Your task to perform on an android device: Add "duracell triple a" to the cart on ebay, then select checkout. Image 0: 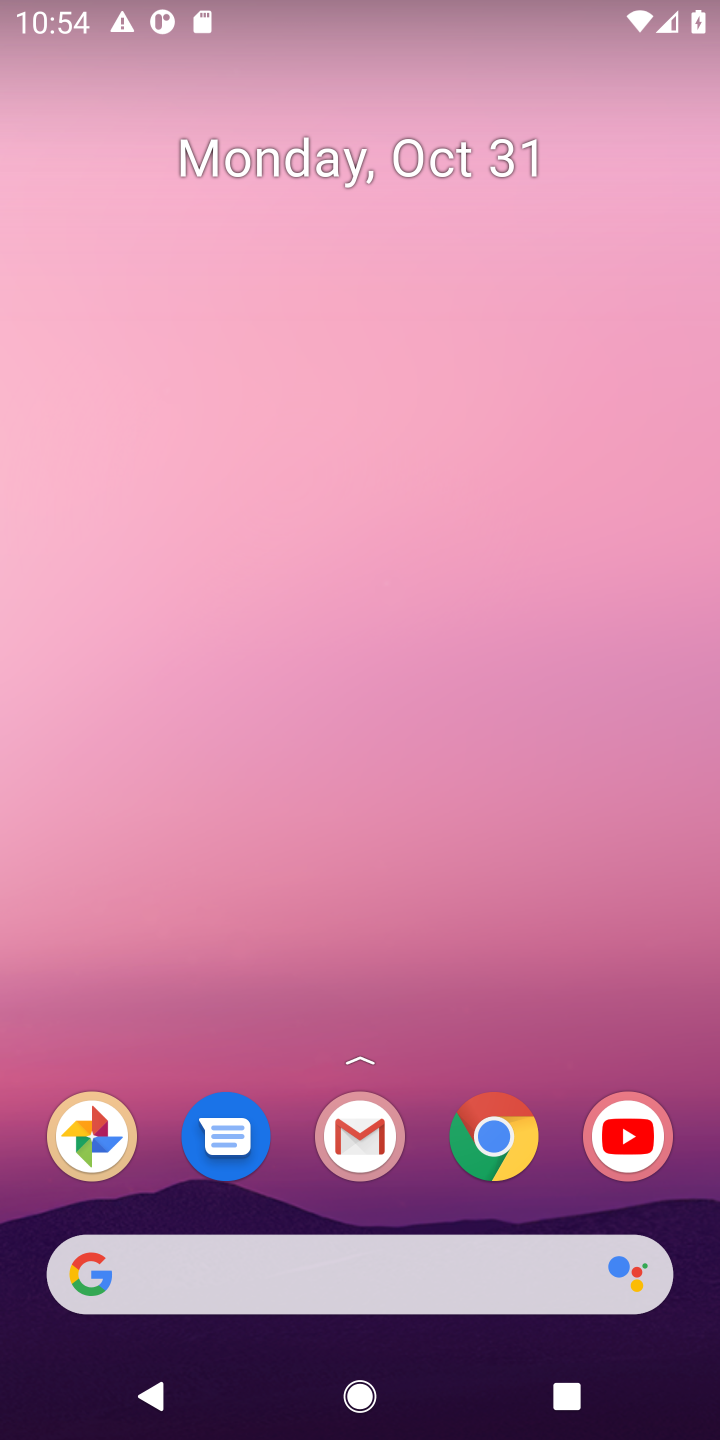
Step 0: press home button
Your task to perform on an android device: Add "duracell triple a" to the cart on ebay, then select checkout. Image 1: 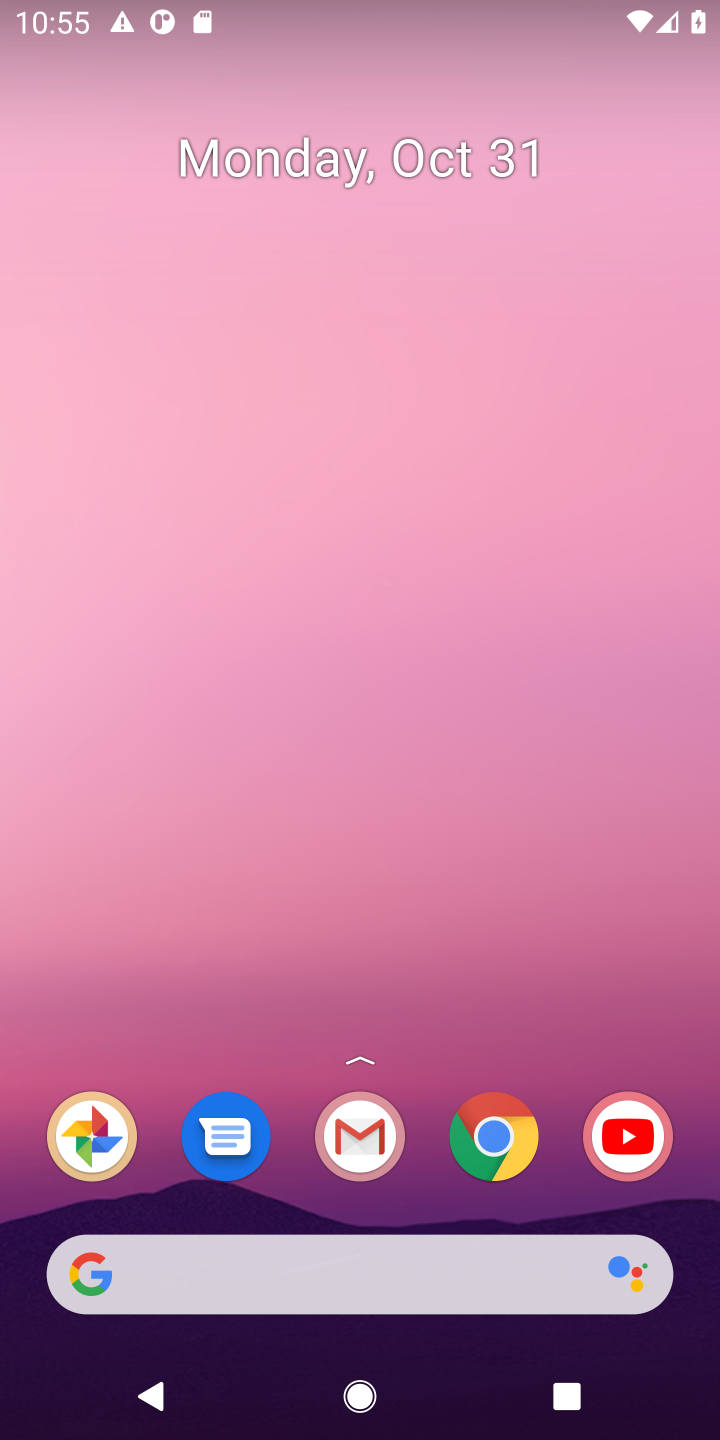
Step 1: click (145, 1274)
Your task to perform on an android device: Add "duracell triple a" to the cart on ebay, then select checkout. Image 2: 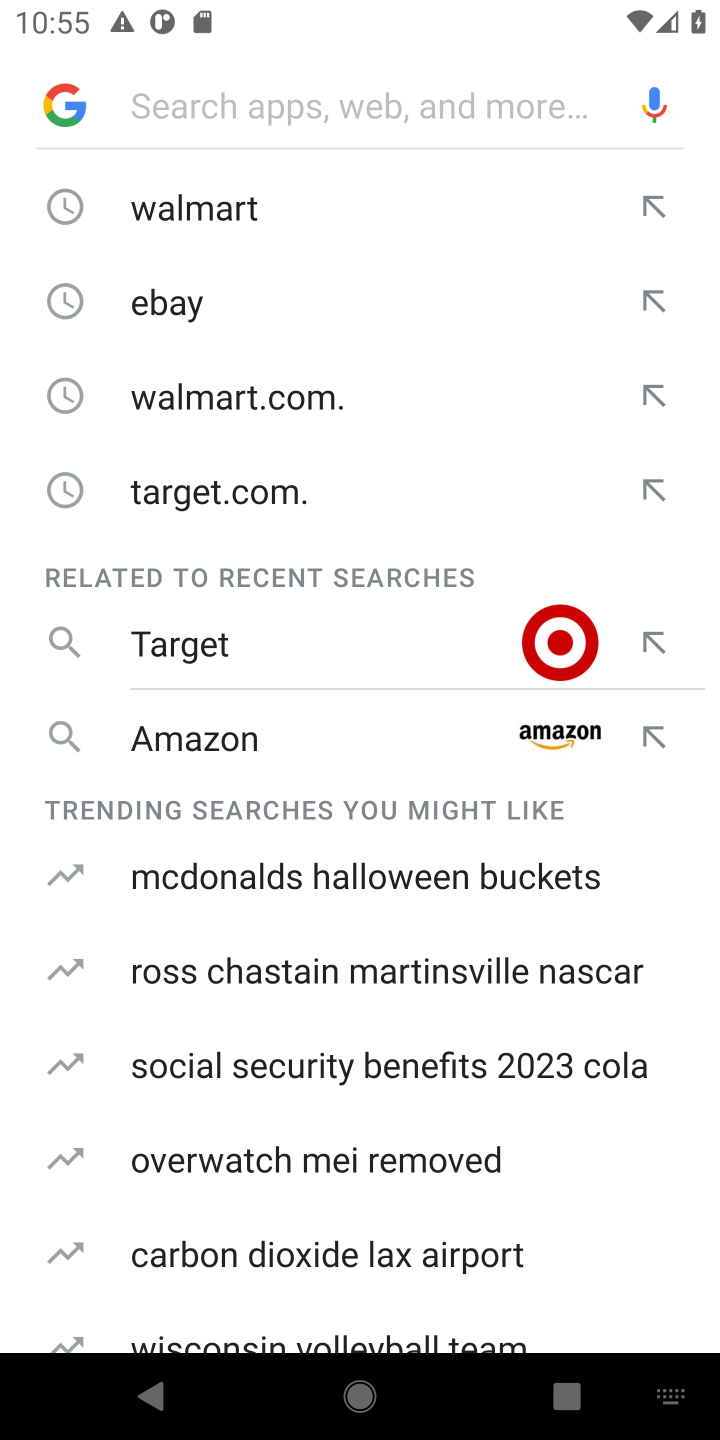
Step 2: type "ebay,"
Your task to perform on an android device: Add "duracell triple a" to the cart on ebay, then select checkout. Image 3: 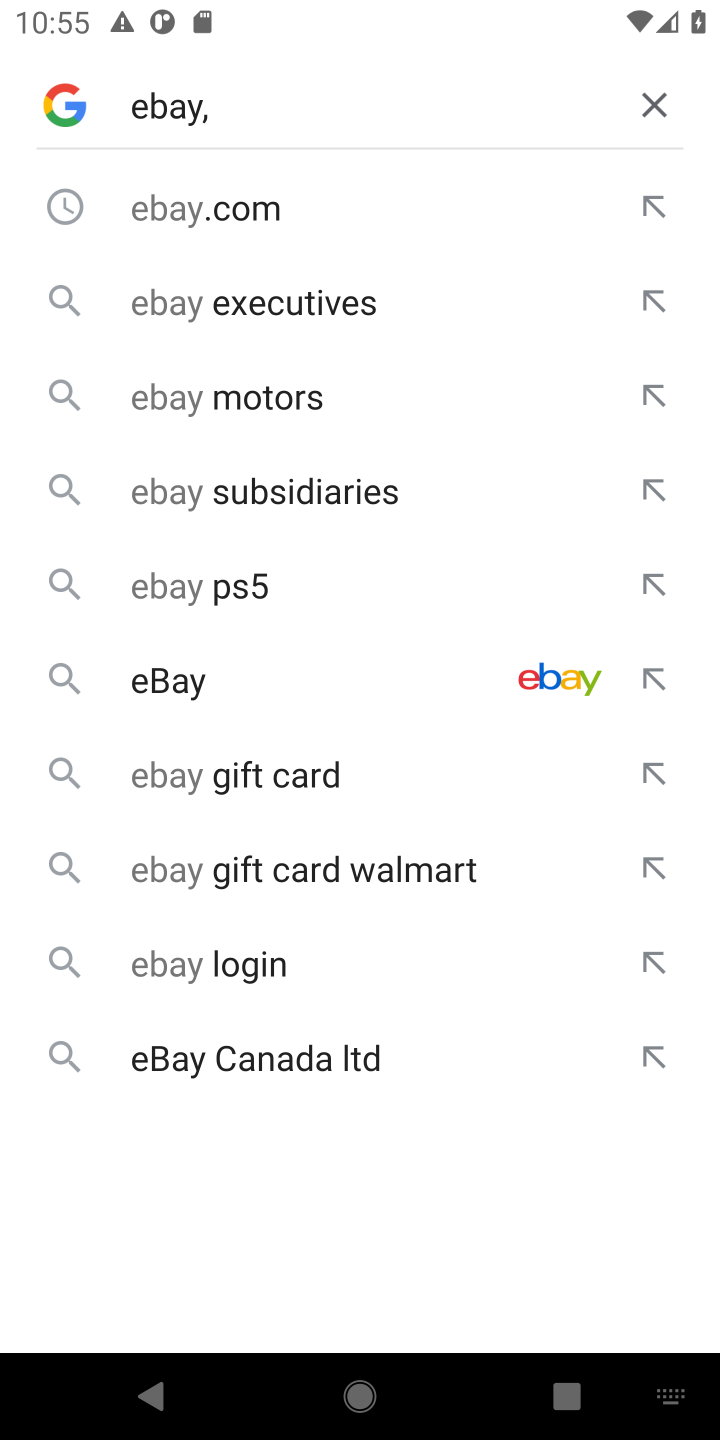
Step 3: press enter
Your task to perform on an android device: Add "duracell triple a" to the cart on ebay, then select checkout. Image 4: 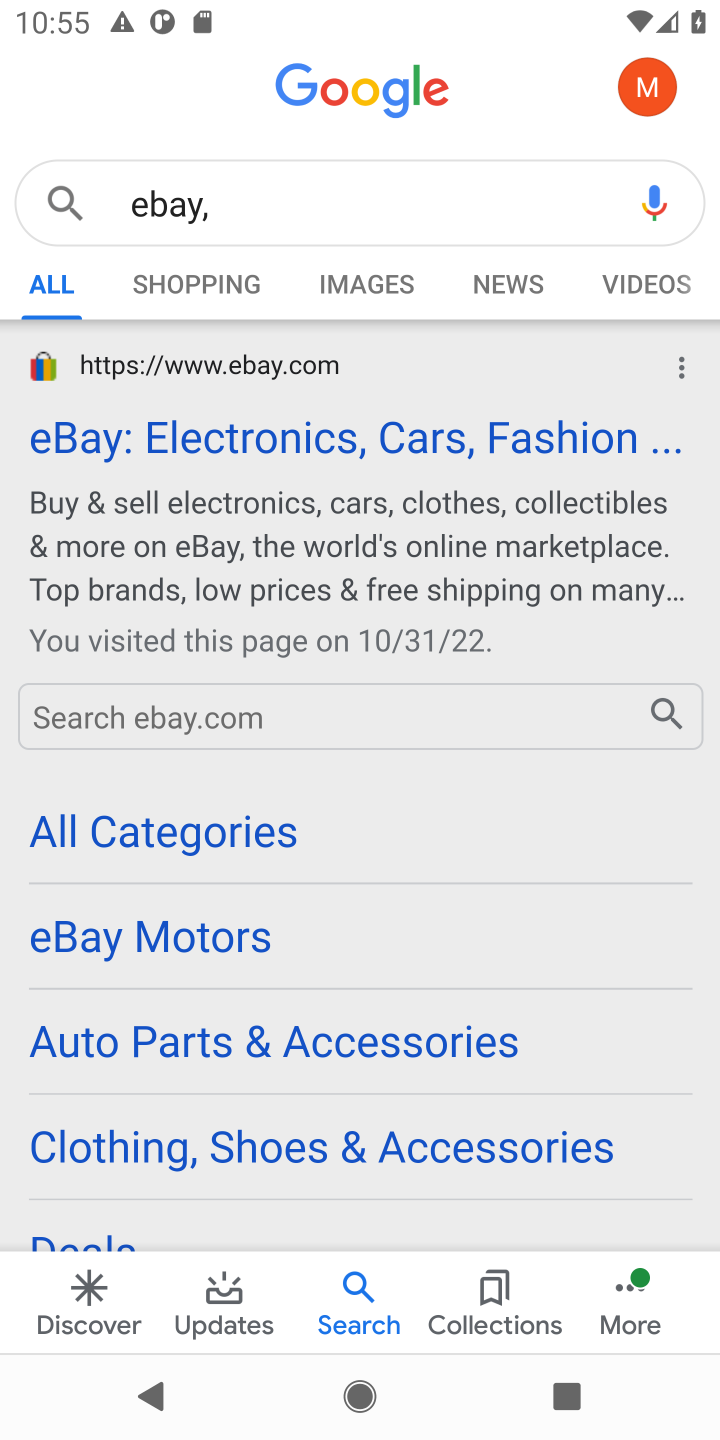
Step 4: click (300, 450)
Your task to perform on an android device: Add "duracell triple a" to the cart on ebay, then select checkout. Image 5: 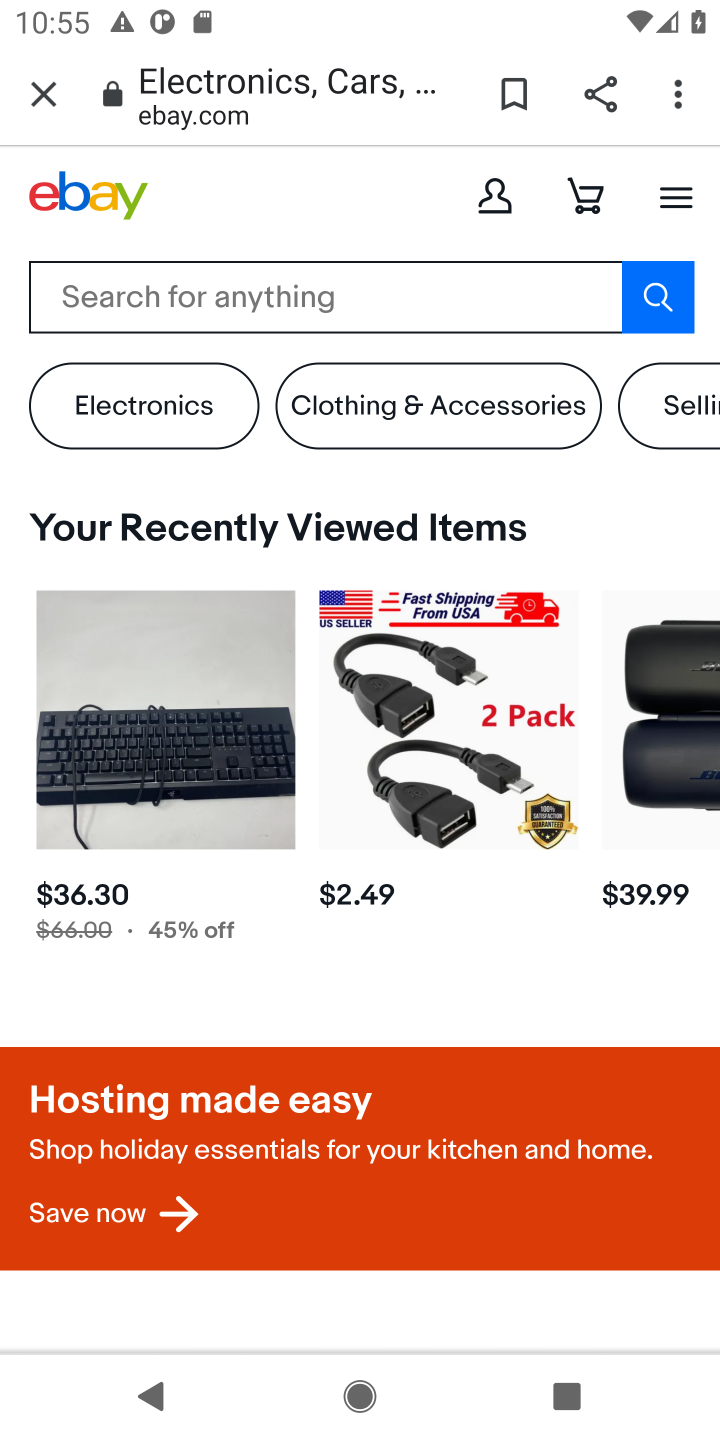
Step 5: click (278, 301)
Your task to perform on an android device: Add "duracell triple a" to the cart on ebay, then select checkout. Image 6: 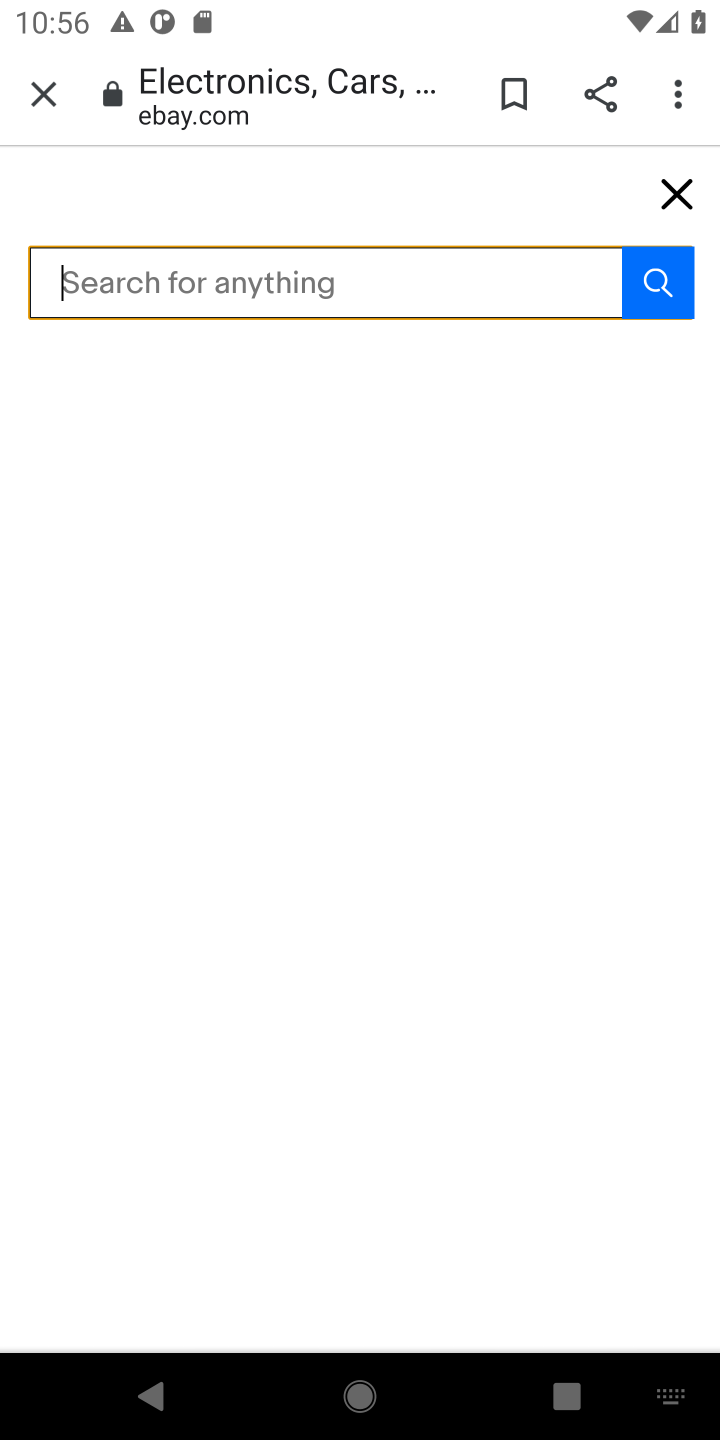
Step 6: type "duracell triple a"
Your task to perform on an android device: Add "duracell triple a" to the cart on ebay, then select checkout. Image 7: 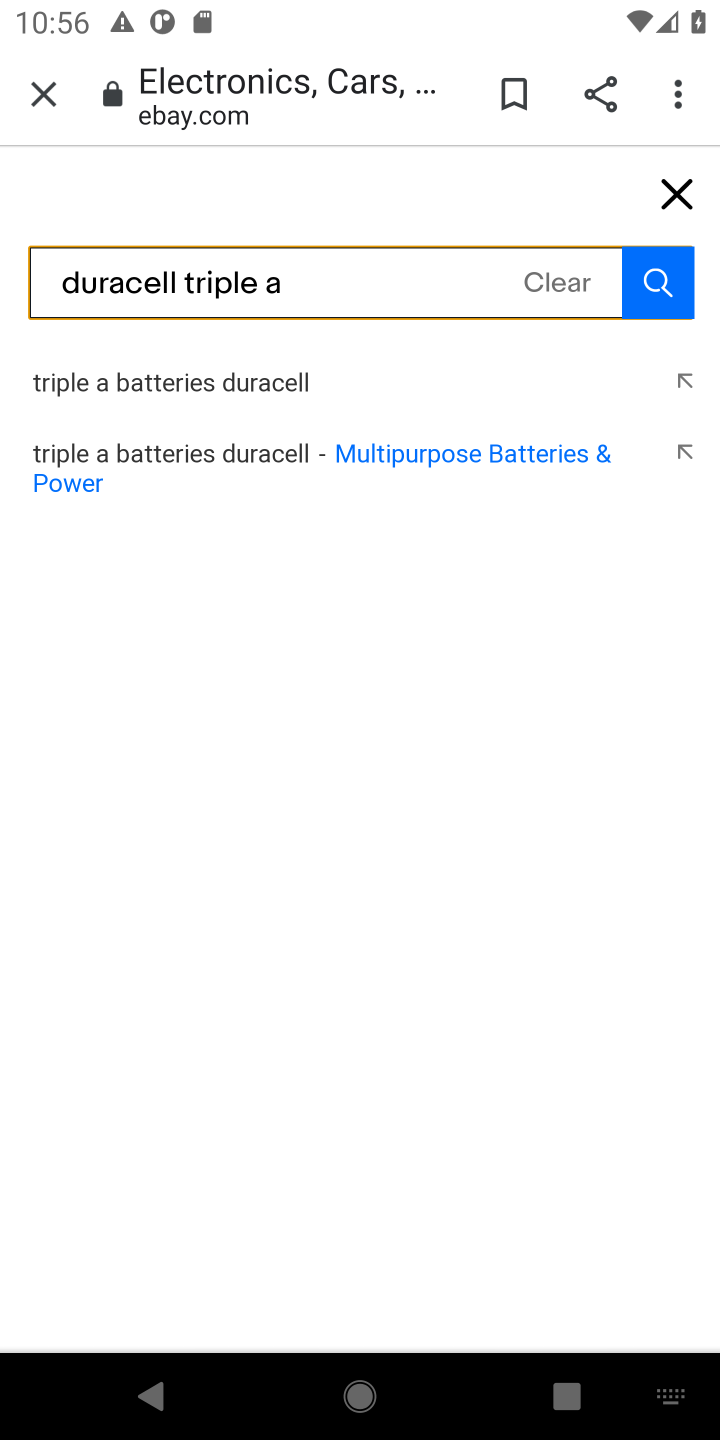
Step 7: click (660, 280)
Your task to perform on an android device: Add "duracell triple a" to the cart on ebay, then select checkout. Image 8: 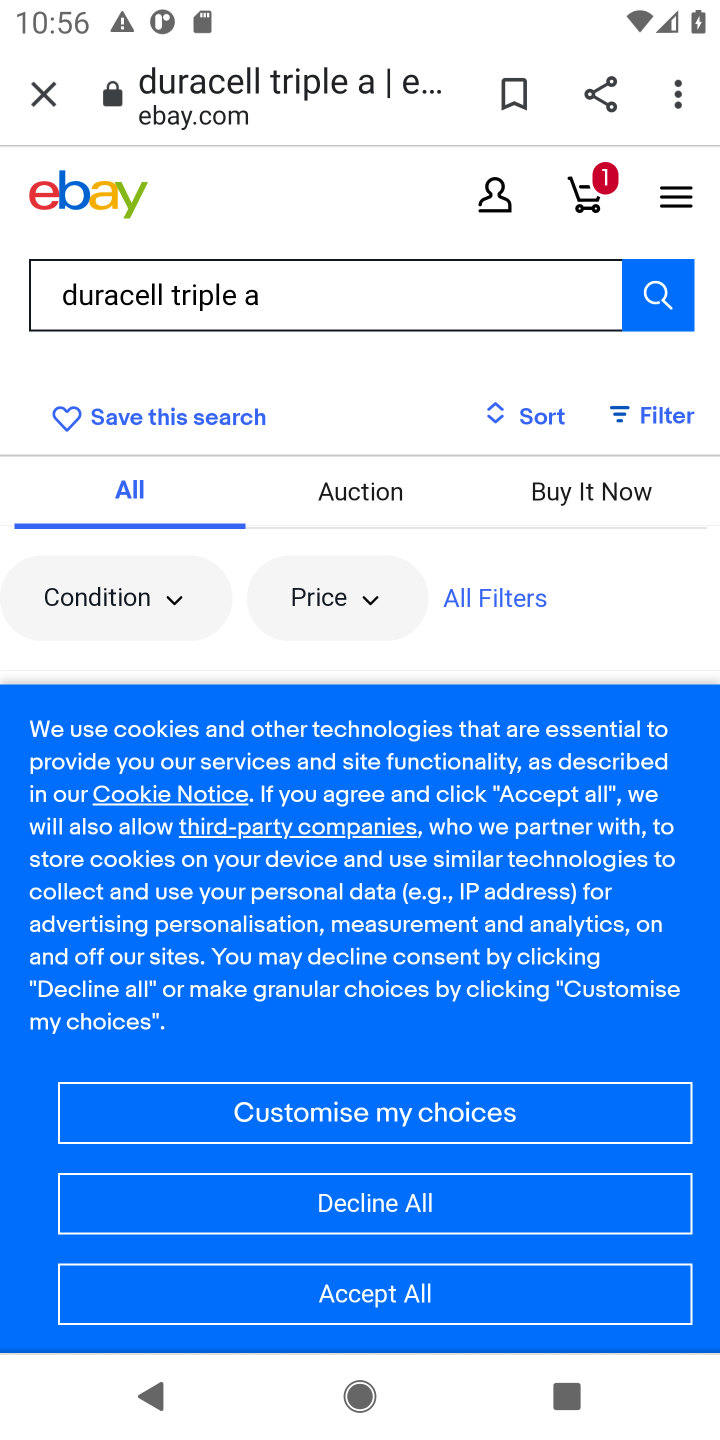
Step 8: click (410, 1311)
Your task to perform on an android device: Add "duracell triple a" to the cart on ebay, then select checkout. Image 9: 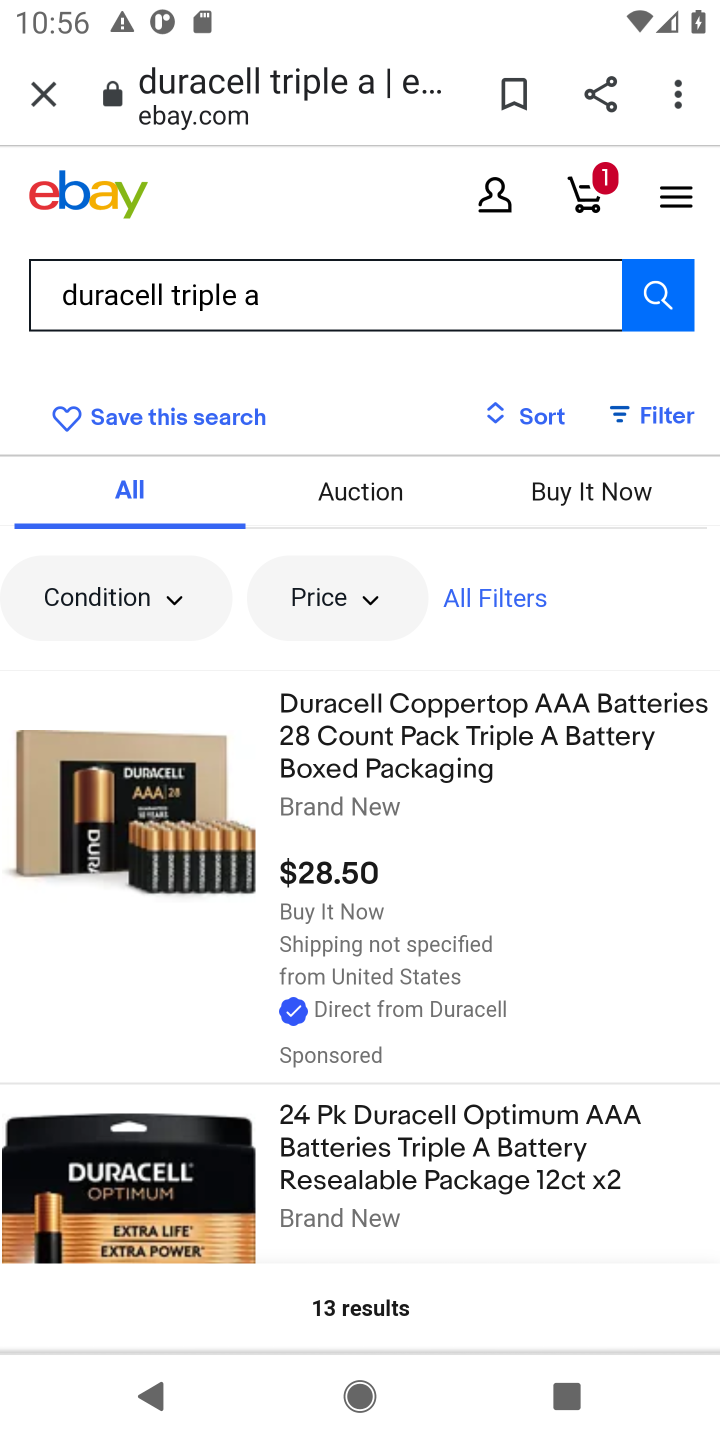
Step 9: click (394, 788)
Your task to perform on an android device: Add "duracell triple a" to the cart on ebay, then select checkout. Image 10: 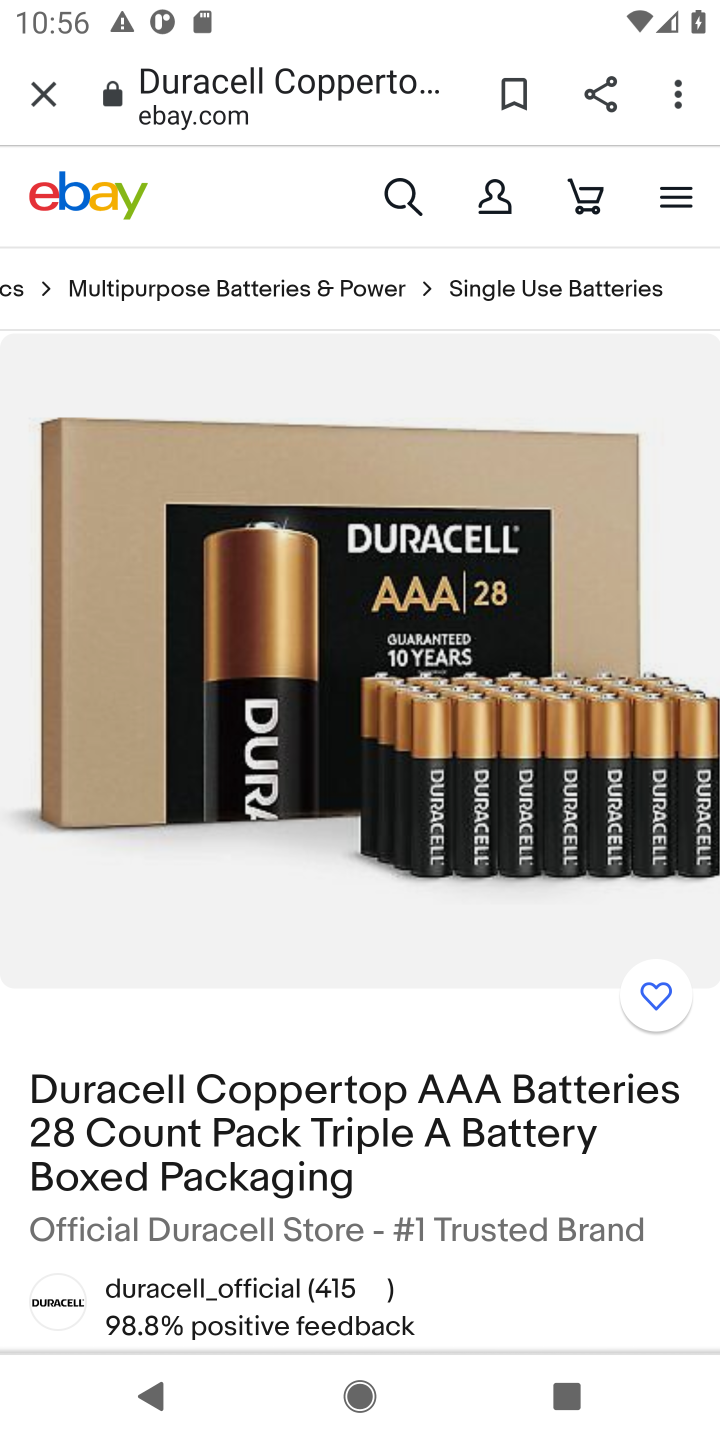
Step 10: drag from (338, 1109) to (433, 503)
Your task to perform on an android device: Add "duracell triple a" to the cart on ebay, then select checkout. Image 11: 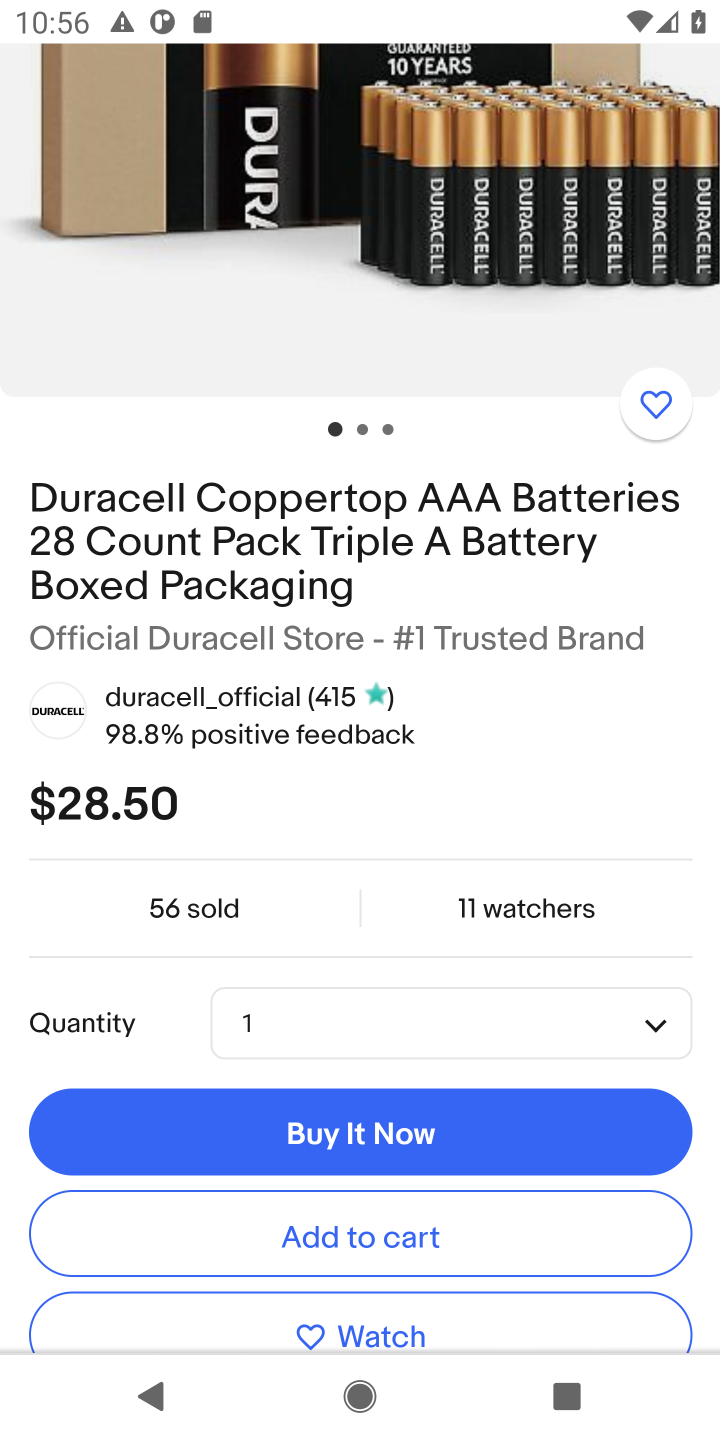
Step 11: click (378, 1236)
Your task to perform on an android device: Add "duracell triple a" to the cart on ebay, then select checkout. Image 12: 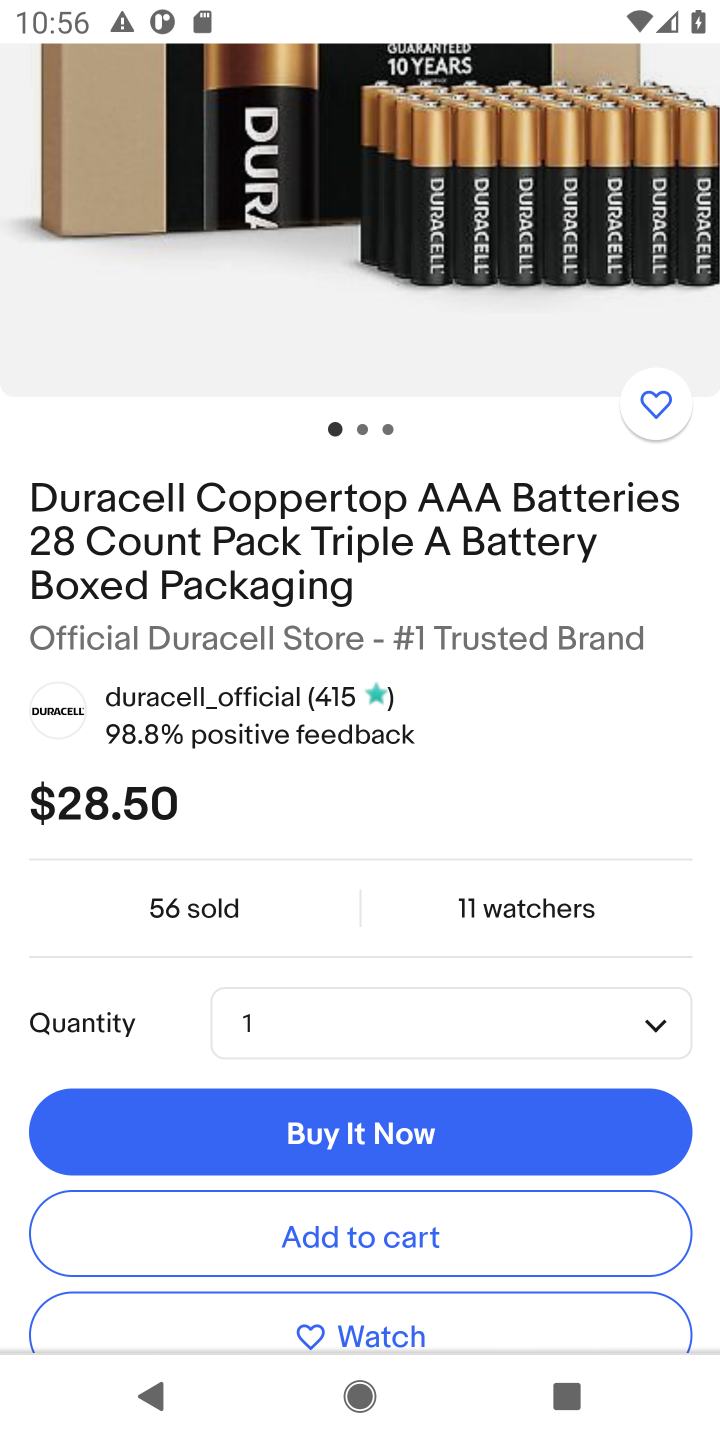
Step 12: click (385, 1234)
Your task to perform on an android device: Add "duracell triple a" to the cart on ebay, then select checkout. Image 13: 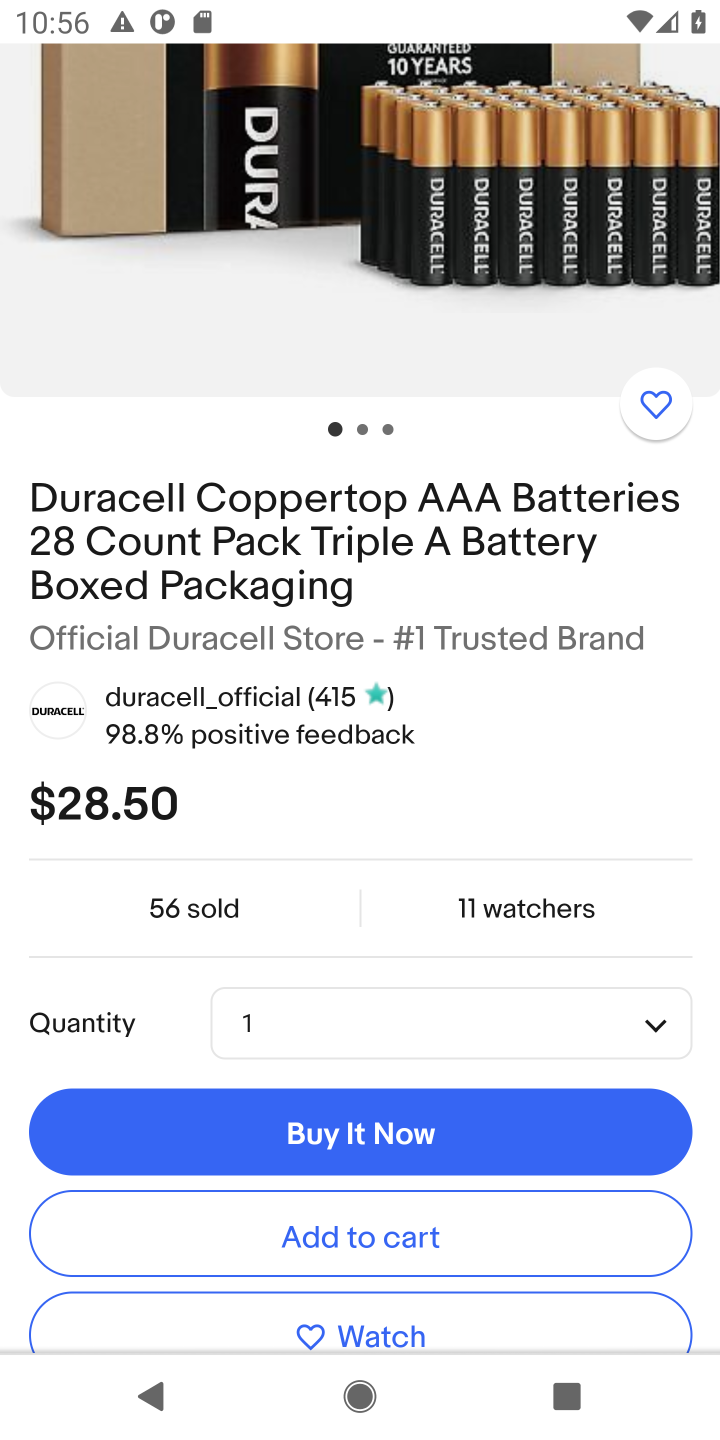
Step 13: drag from (352, 1112) to (431, 270)
Your task to perform on an android device: Add "duracell triple a" to the cart on ebay, then select checkout. Image 14: 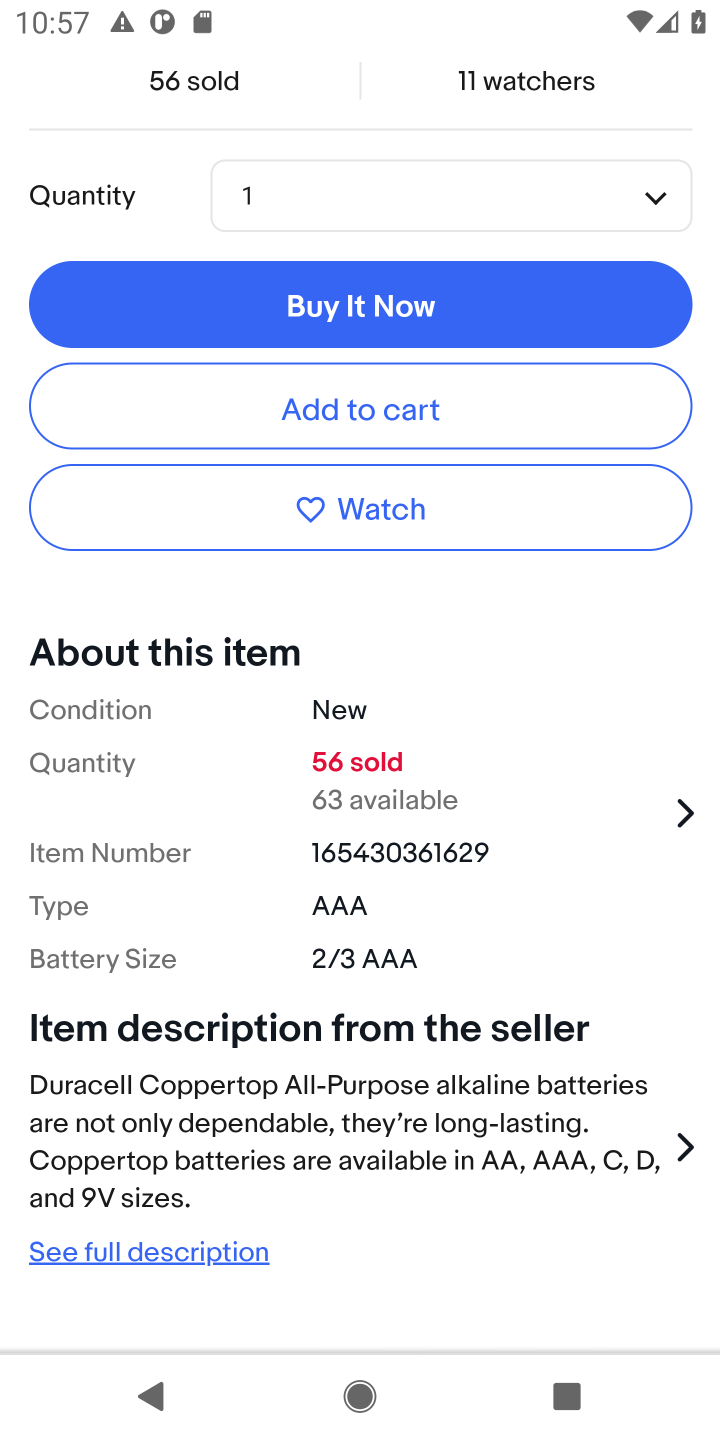
Step 14: click (322, 398)
Your task to perform on an android device: Add "duracell triple a" to the cart on ebay, then select checkout. Image 15: 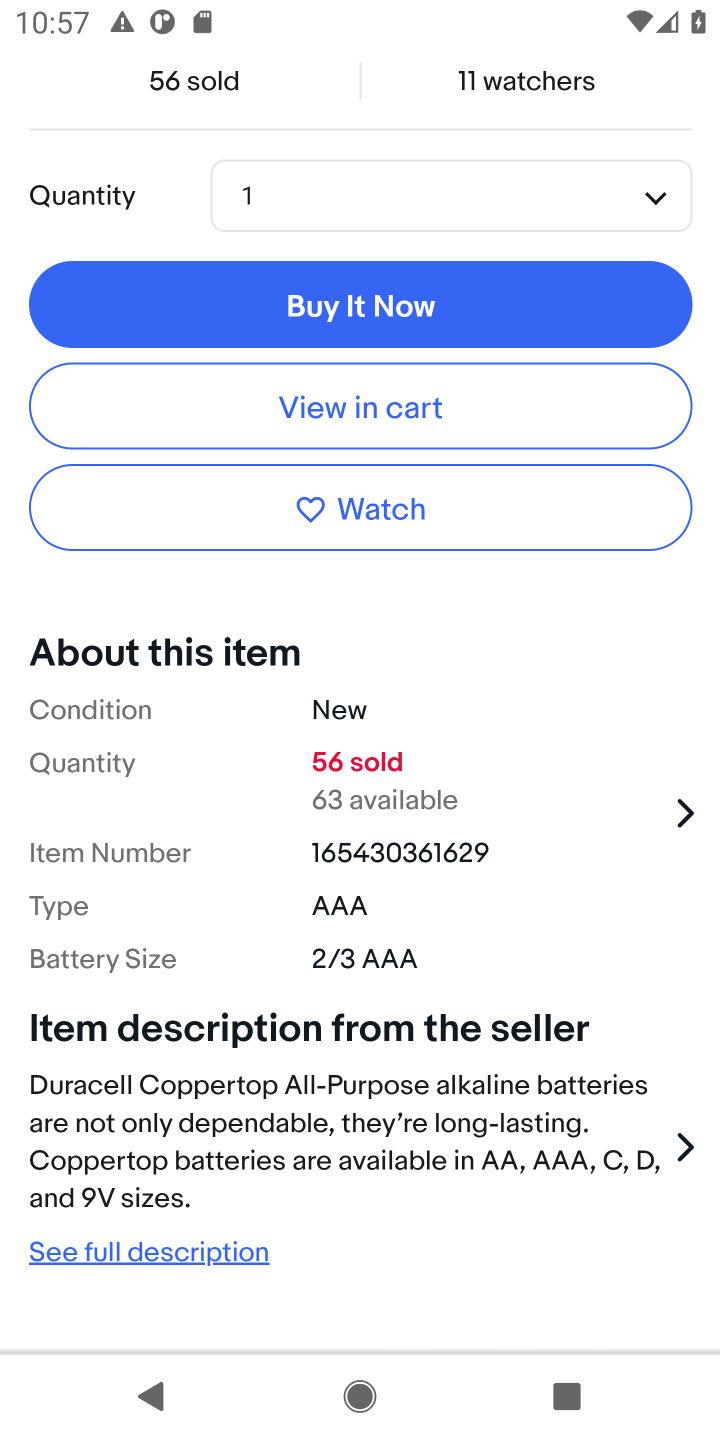
Step 15: click (322, 398)
Your task to perform on an android device: Add "duracell triple a" to the cart on ebay, then select checkout. Image 16: 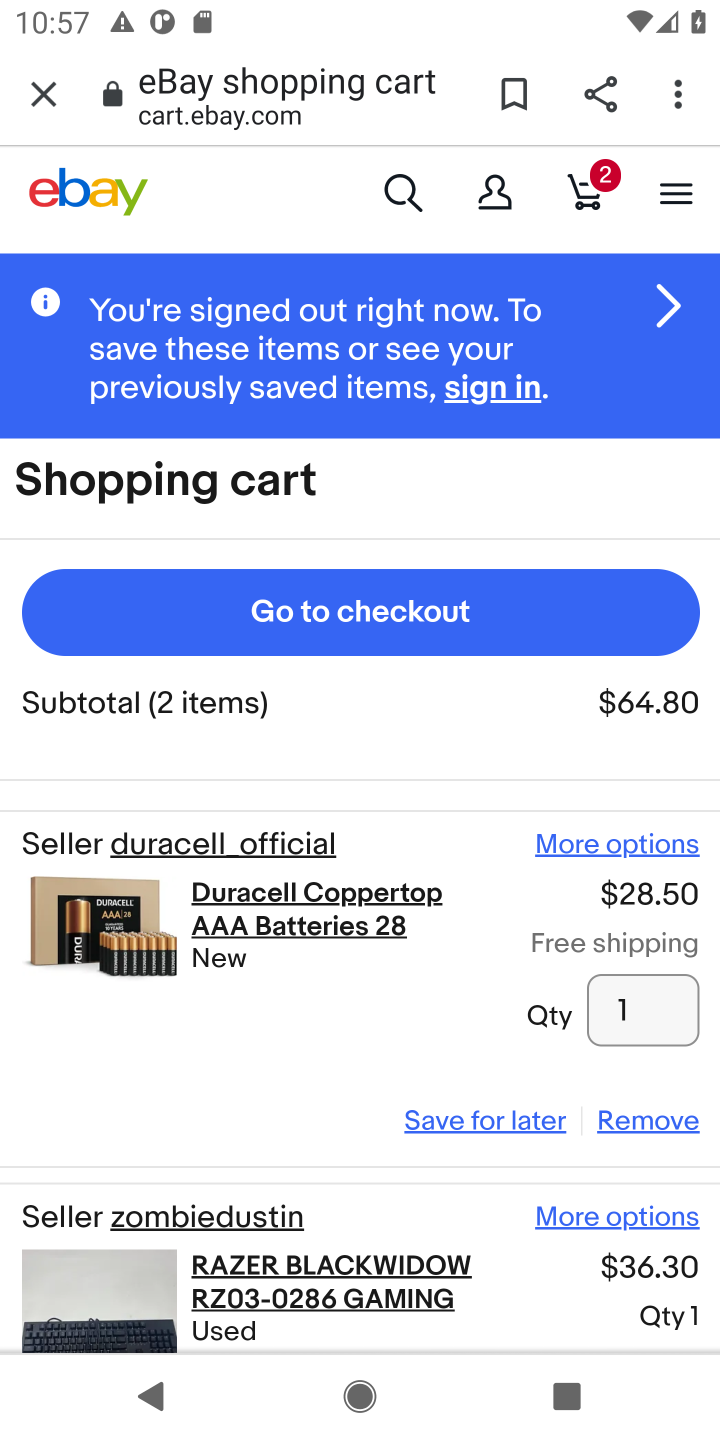
Step 16: click (311, 614)
Your task to perform on an android device: Add "duracell triple a" to the cart on ebay, then select checkout. Image 17: 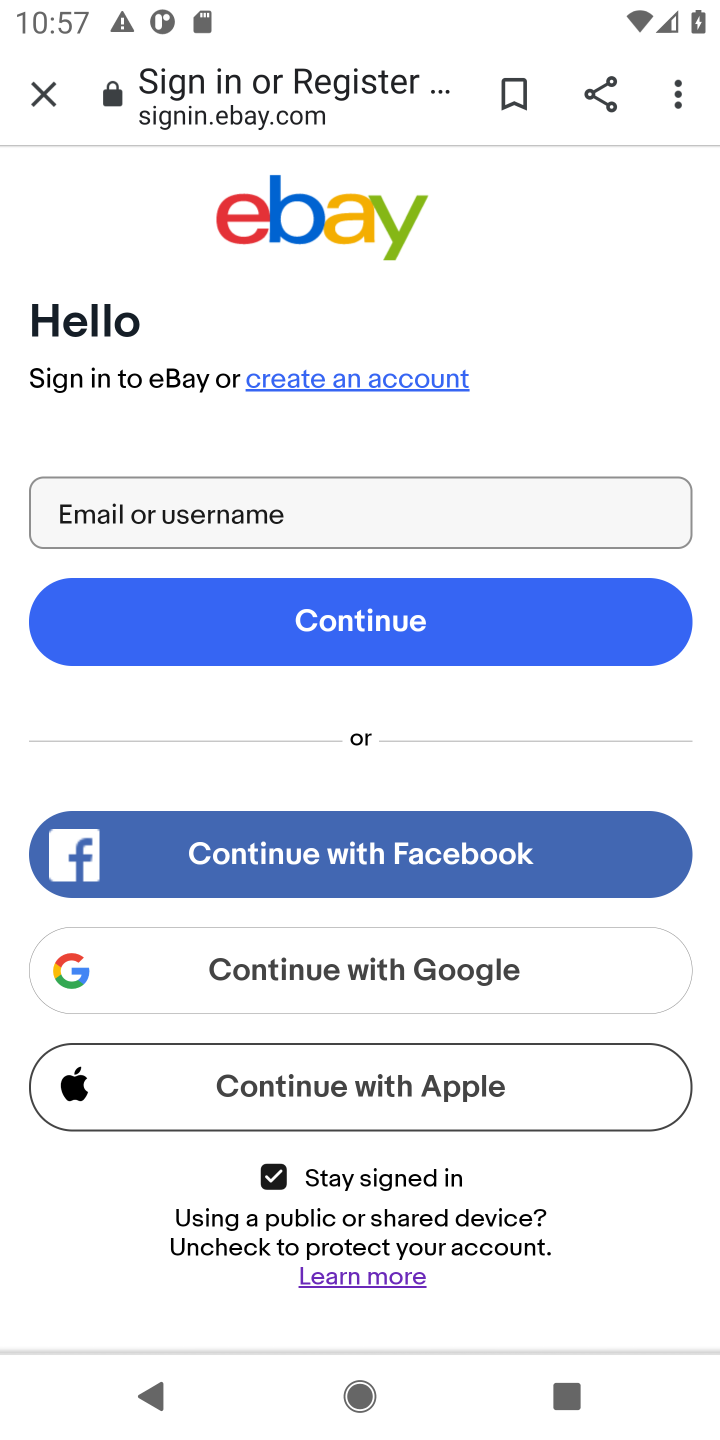
Step 17: task complete